Your task to perform on an android device: Go to Amazon Image 0: 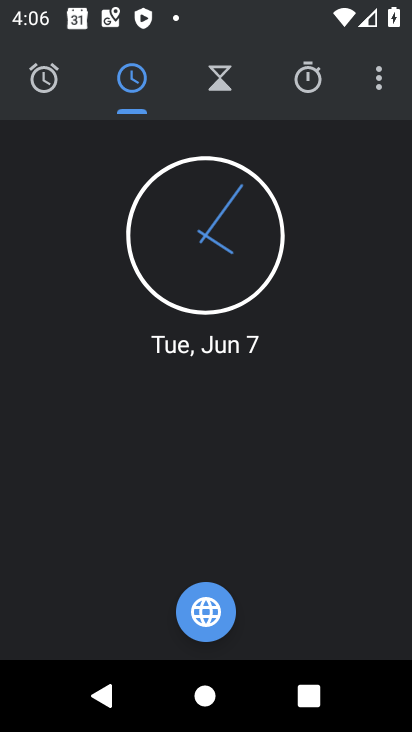
Step 0: press back button
Your task to perform on an android device: Go to Amazon Image 1: 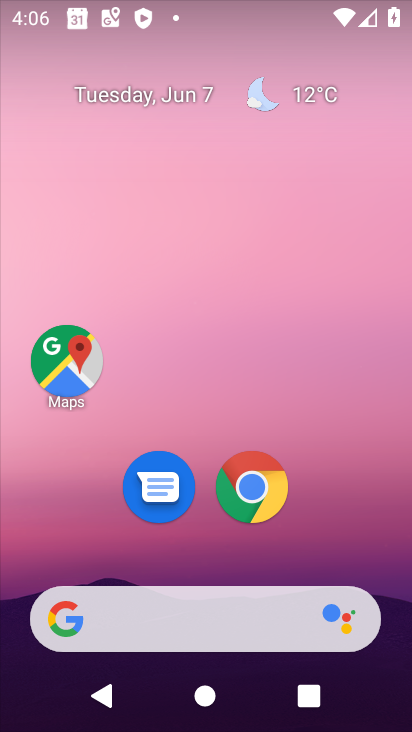
Step 1: click (259, 479)
Your task to perform on an android device: Go to Amazon Image 2: 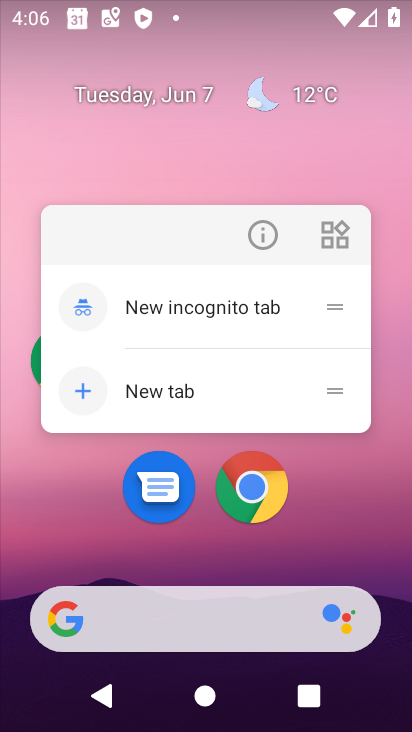
Step 2: click (262, 489)
Your task to perform on an android device: Go to Amazon Image 3: 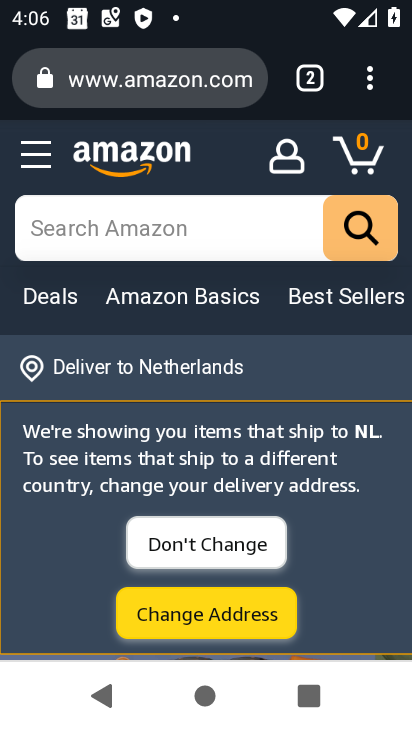
Step 3: task complete